Your task to perform on an android device: delete browsing data in the chrome app Image 0: 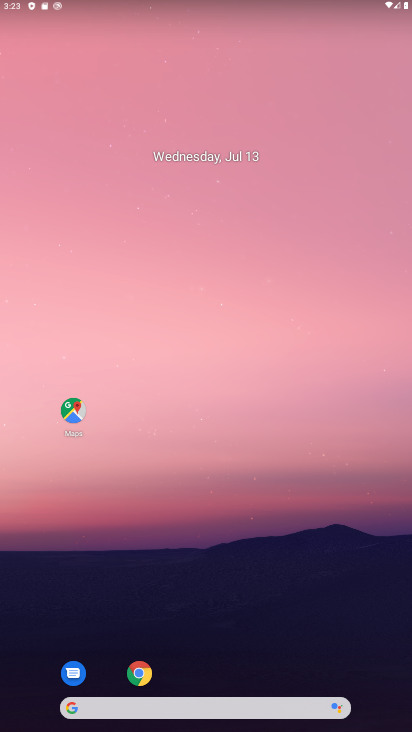
Step 0: click (139, 674)
Your task to perform on an android device: delete browsing data in the chrome app Image 1: 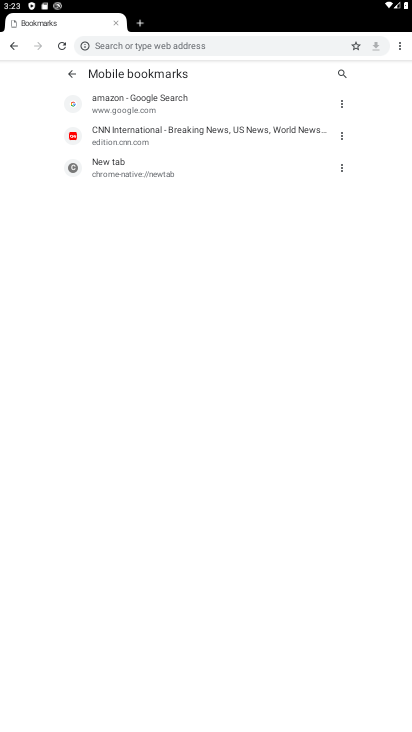
Step 1: click (399, 46)
Your task to perform on an android device: delete browsing data in the chrome app Image 2: 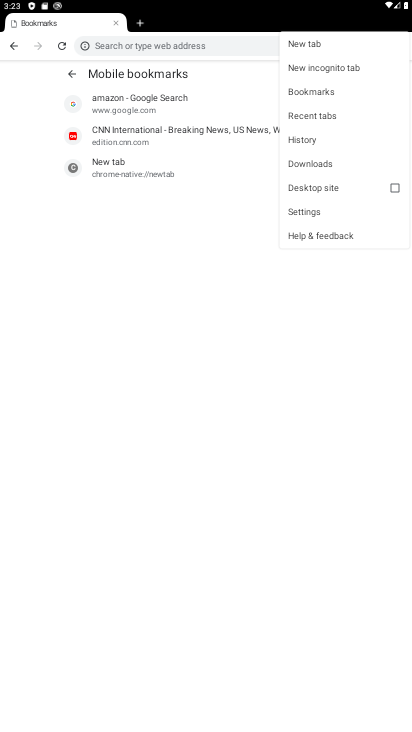
Step 2: click (308, 210)
Your task to perform on an android device: delete browsing data in the chrome app Image 3: 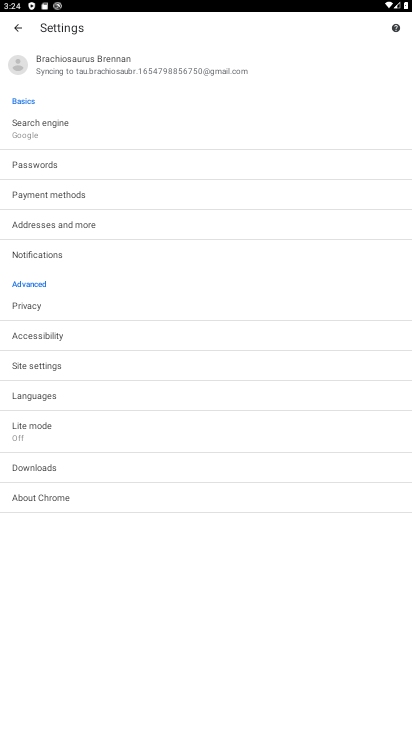
Step 3: click (42, 302)
Your task to perform on an android device: delete browsing data in the chrome app Image 4: 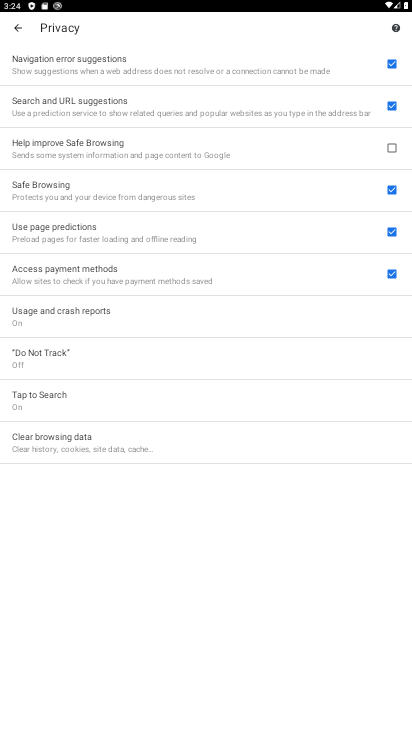
Step 4: click (77, 443)
Your task to perform on an android device: delete browsing data in the chrome app Image 5: 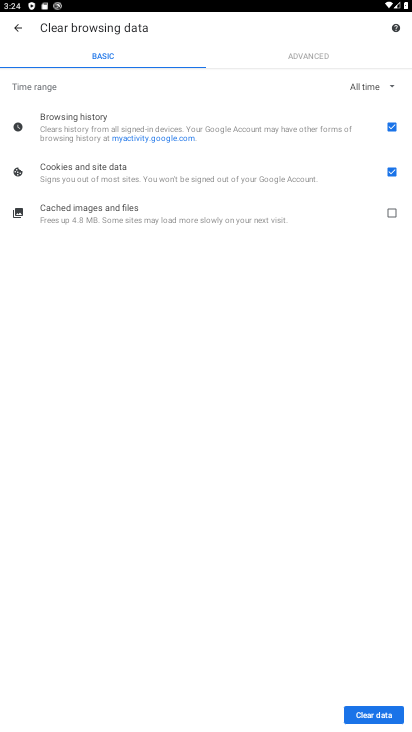
Step 5: click (393, 210)
Your task to perform on an android device: delete browsing data in the chrome app Image 6: 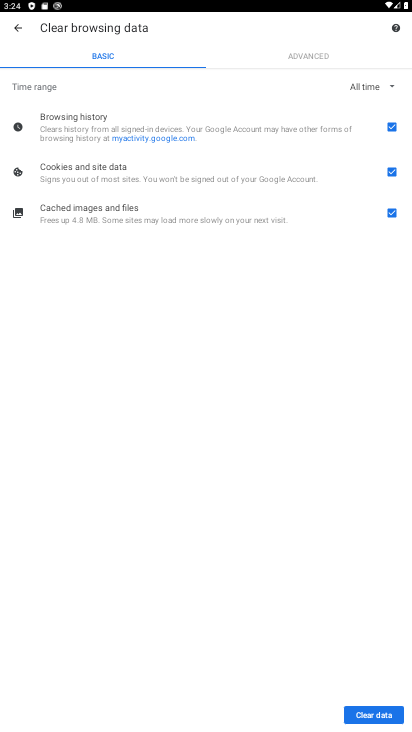
Step 6: click (372, 714)
Your task to perform on an android device: delete browsing data in the chrome app Image 7: 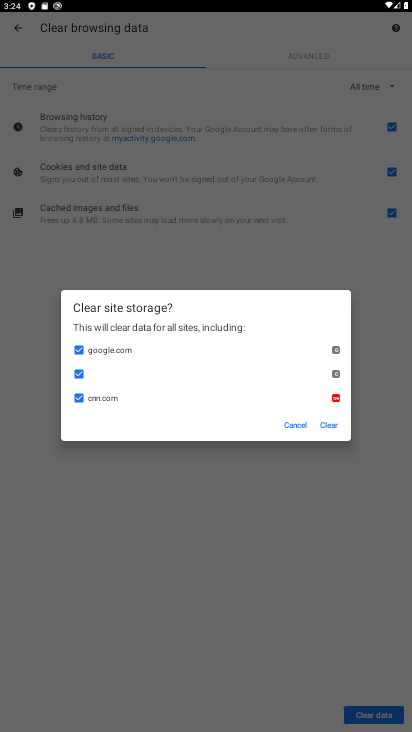
Step 7: click (337, 421)
Your task to perform on an android device: delete browsing data in the chrome app Image 8: 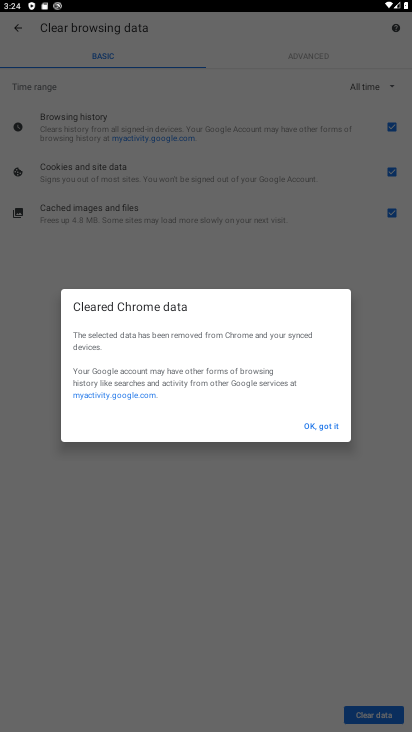
Step 8: click (325, 423)
Your task to perform on an android device: delete browsing data in the chrome app Image 9: 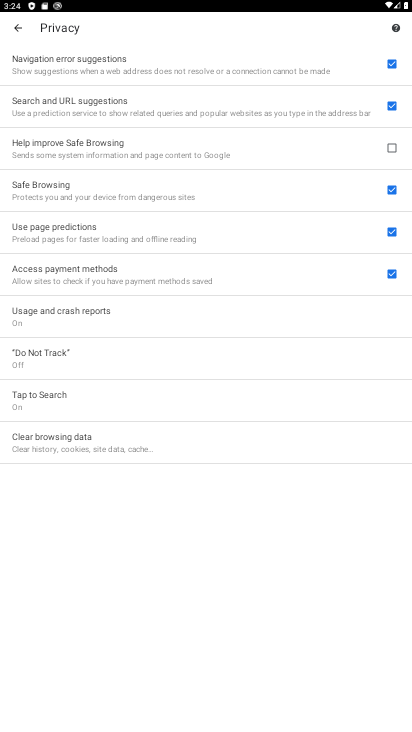
Step 9: task complete